Your task to perform on an android device: delete the emails in spam in the gmail app Image 0: 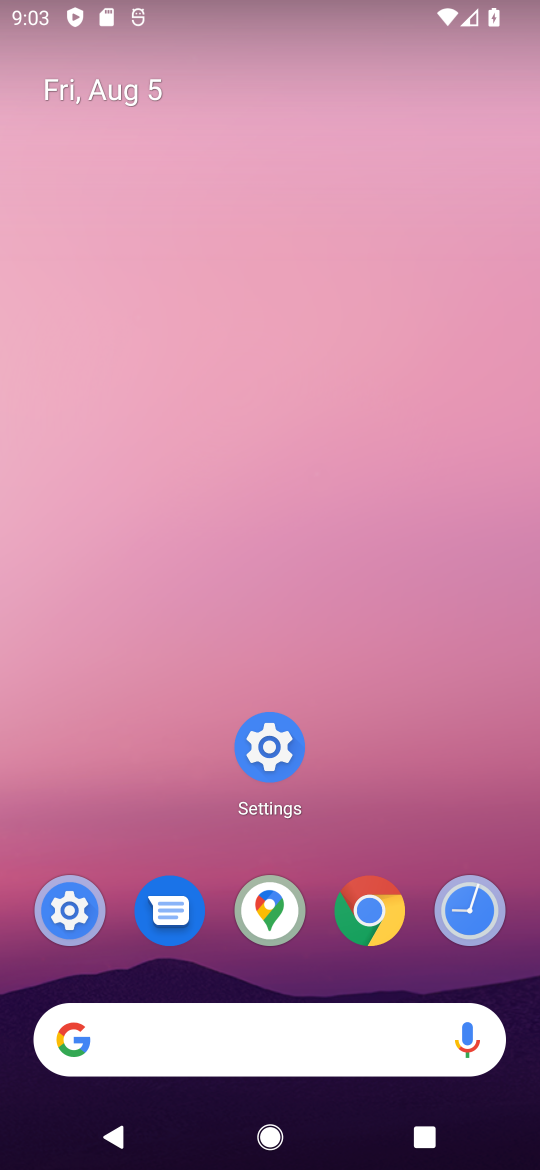
Step 0: drag from (228, 1031) to (315, 296)
Your task to perform on an android device: delete the emails in spam in the gmail app Image 1: 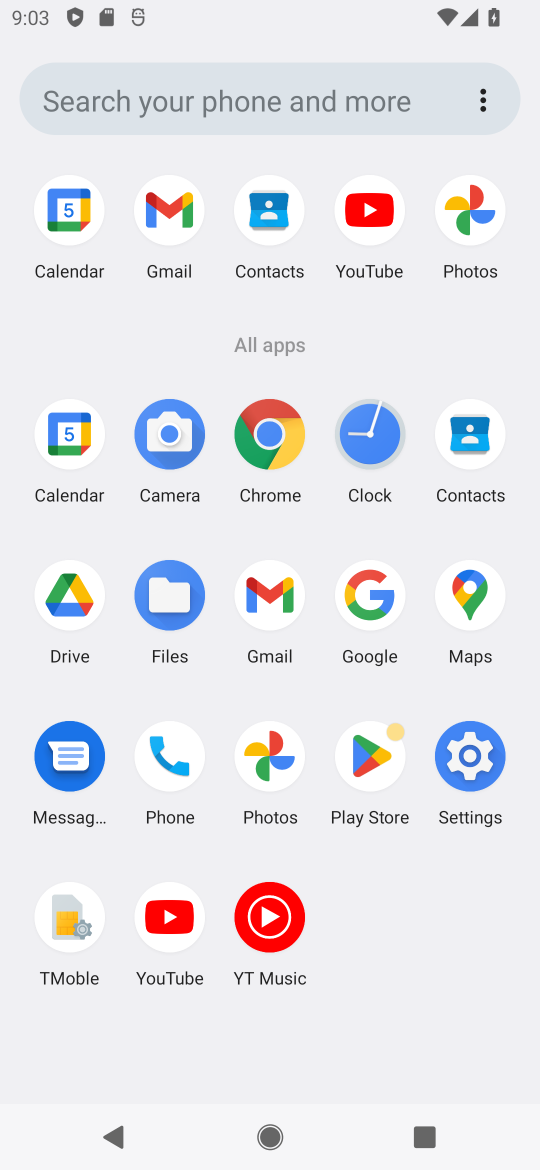
Step 1: click (170, 220)
Your task to perform on an android device: delete the emails in spam in the gmail app Image 2: 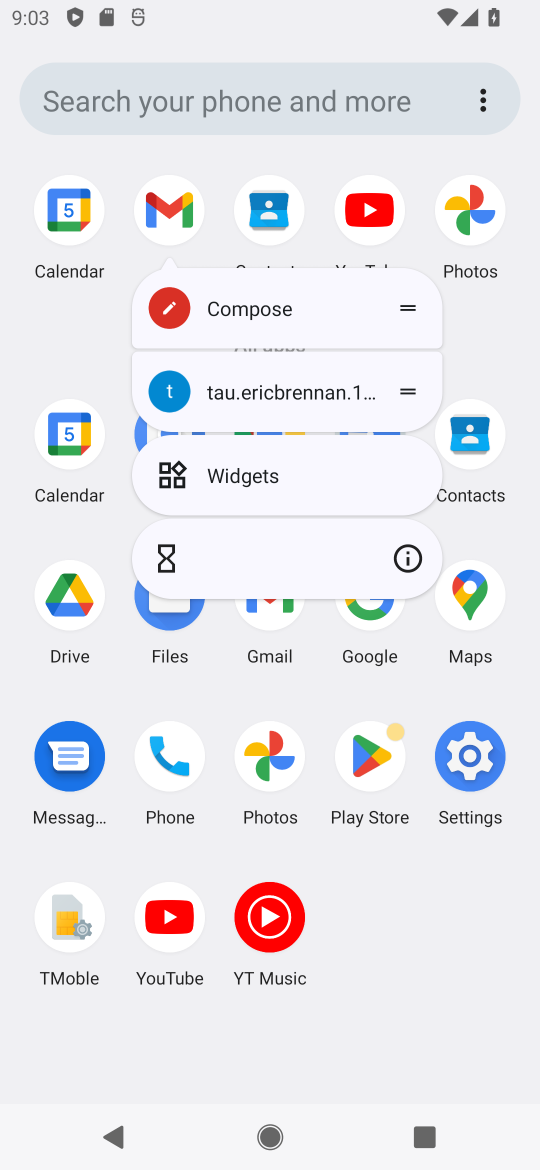
Step 2: click (170, 220)
Your task to perform on an android device: delete the emails in spam in the gmail app Image 3: 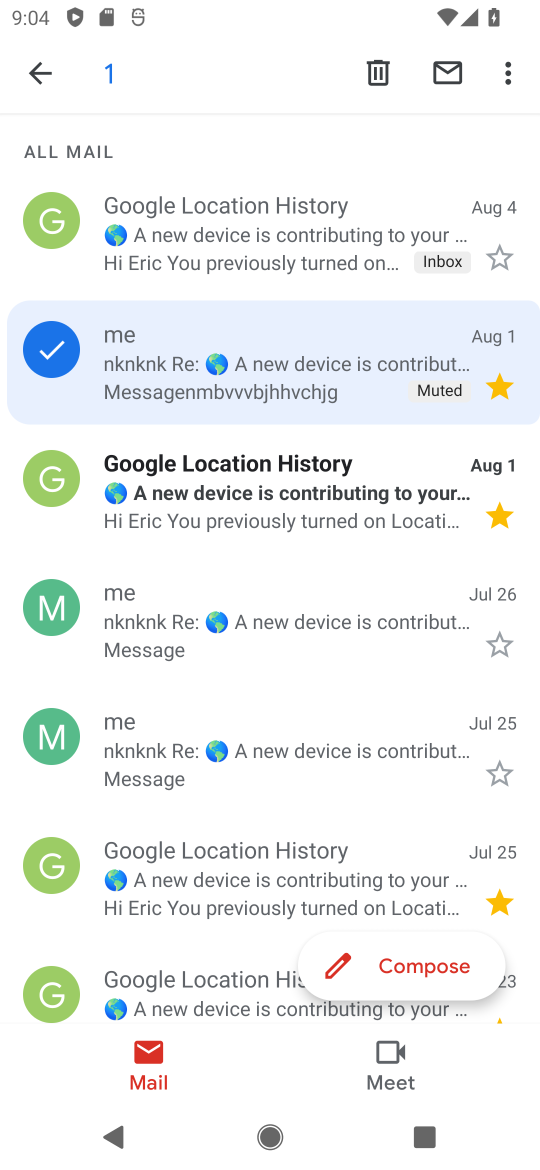
Step 3: click (53, 333)
Your task to perform on an android device: delete the emails in spam in the gmail app Image 4: 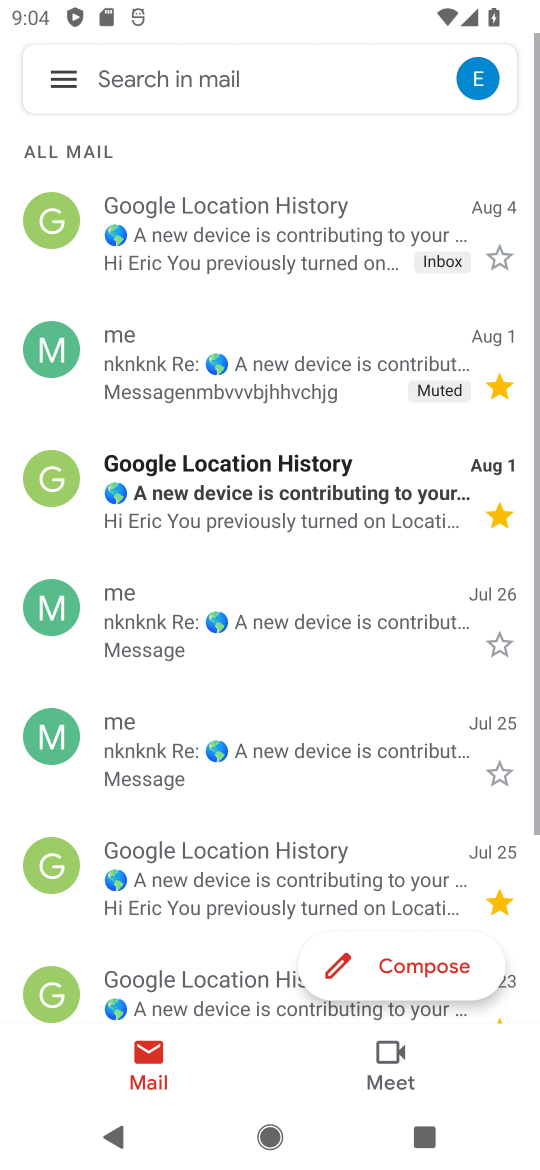
Step 4: click (53, 73)
Your task to perform on an android device: delete the emails in spam in the gmail app Image 5: 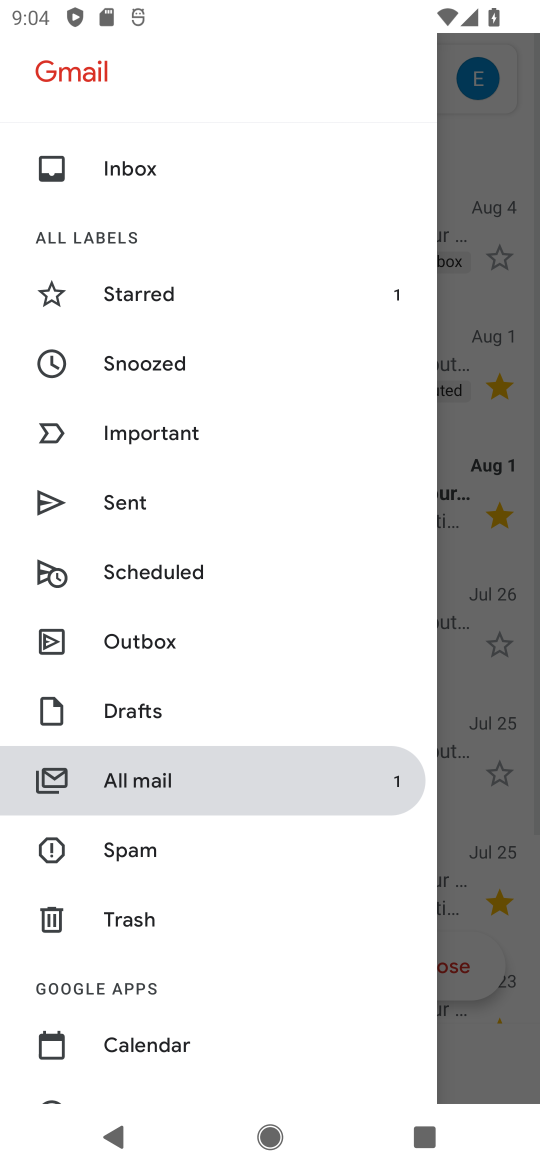
Step 5: click (170, 858)
Your task to perform on an android device: delete the emails in spam in the gmail app Image 6: 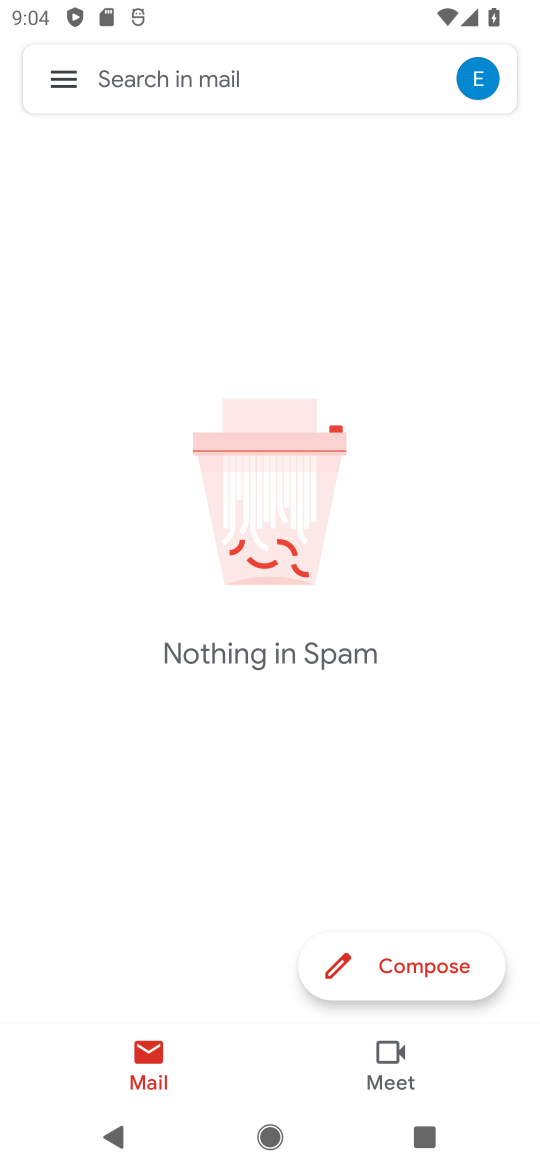
Step 6: task complete